Your task to perform on an android device: open app "Skype" (install if not already installed) Image 0: 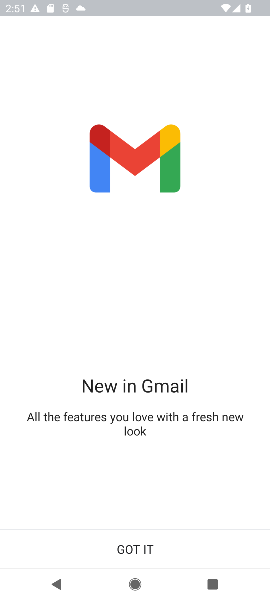
Step 0: press home button
Your task to perform on an android device: open app "Skype" (install if not already installed) Image 1: 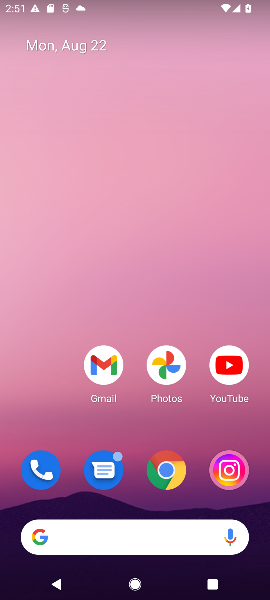
Step 1: drag from (135, 542) to (160, 91)
Your task to perform on an android device: open app "Skype" (install if not already installed) Image 2: 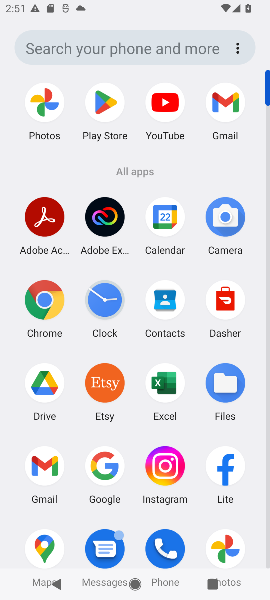
Step 2: click (101, 98)
Your task to perform on an android device: open app "Skype" (install if not already installed) Image 3: 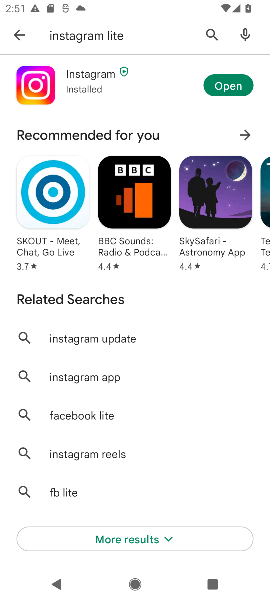
Step 3: click (24, 28)
Your task to perform on an android device: open app "Skype" (install if not already installed) Image 4: 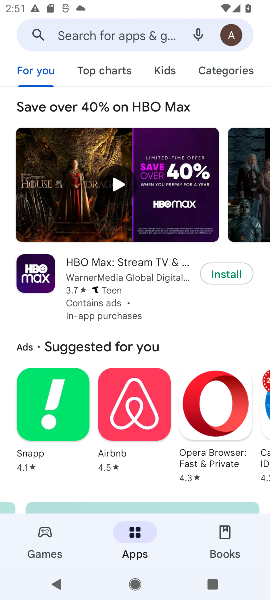
Step 4: click (92, 27)
Your task to perform on an android device: open app "Skype" (install if not already installed) Image 5: 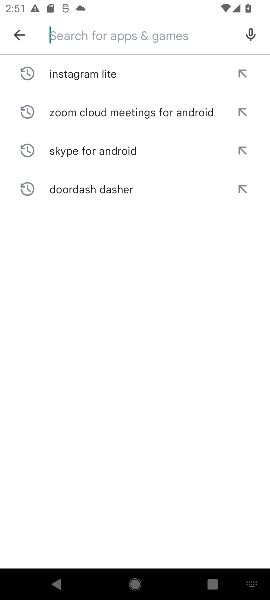
Step 5: type "skype "
Your task to perform on an android device: open app "Skype" (install if not already installed) Image 6: 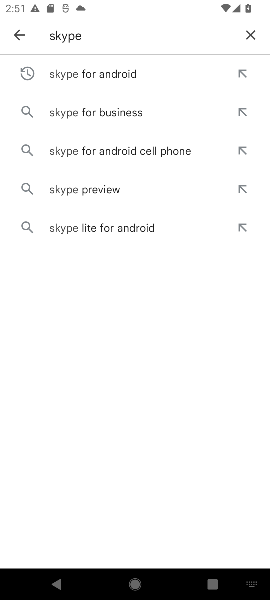
Step 6: click (53, 74)
Your task to perform on an android device: open app "Skype" (install if not already installed) Image 7: 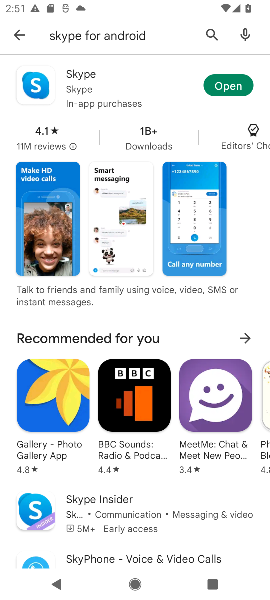
Step 7: click (213, 93)
Your task to perform on an android device: open app "Skype" (install if not already installed) Image 8: 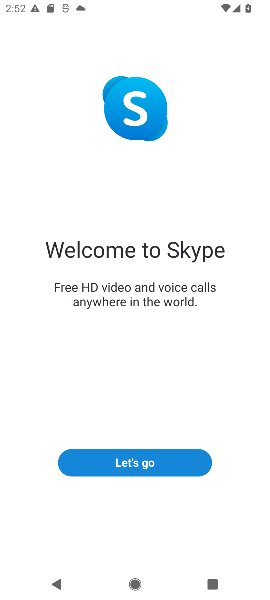
Step 8: task complete